Your task to perform on an android device: Open wifi settings Image 0: 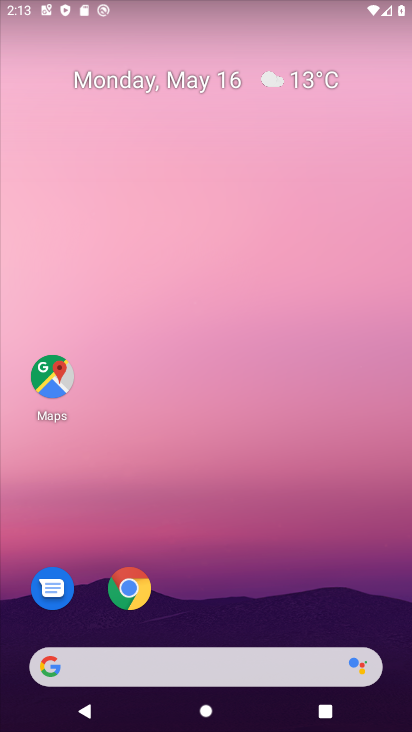
Step 0: drag from (376, 647) to (376, 108)
Your task to perform on an android device: Open wifi settings Image 1: 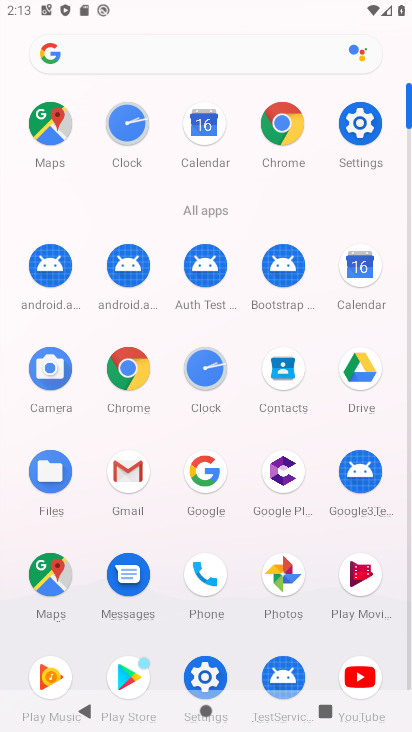
Step 1: click (358, 131)
Your task to perform on an android device: Open wifi settings Image 2: 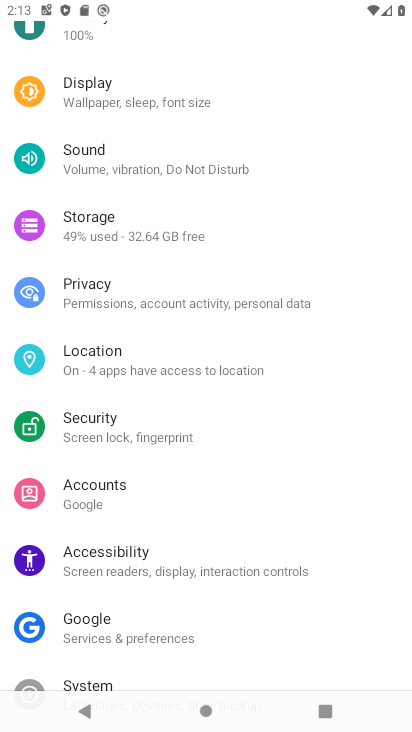
Step 2: drag from (206, 231) to (246, 642)
Your task to perform on an android device: Open wifi settings Image 3: 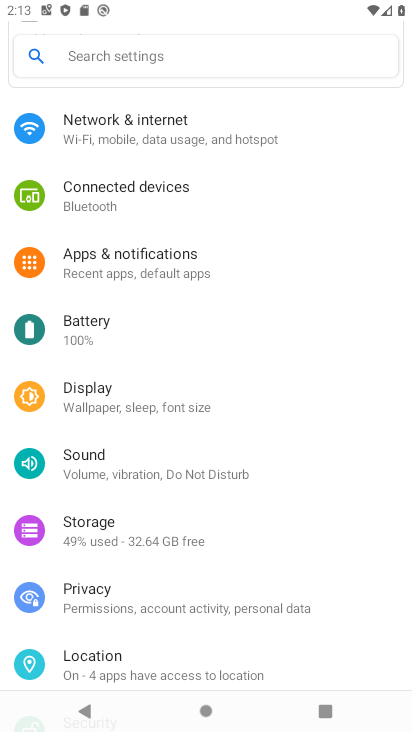
Step 3: click (204, 141)
Your task to perform on an android device: Open wifi settings Image 4: 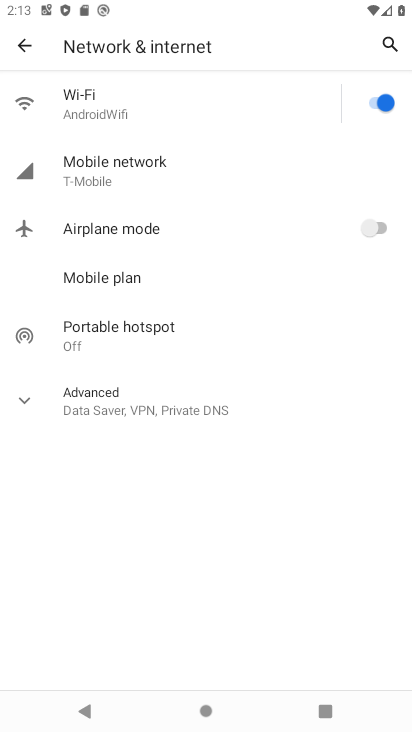
Step 4: click (216, 90)
Your task to perform on an android device: Open wifi settings Image 5: 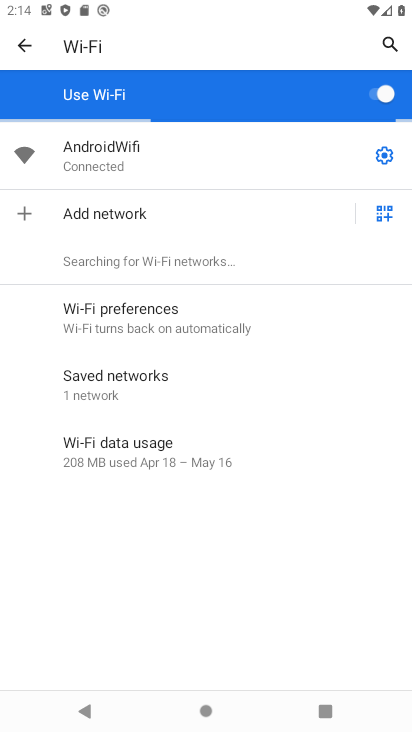
Step 5: task complete